Your task to perform on an android device: Open Chrome and go to settings Image 0: 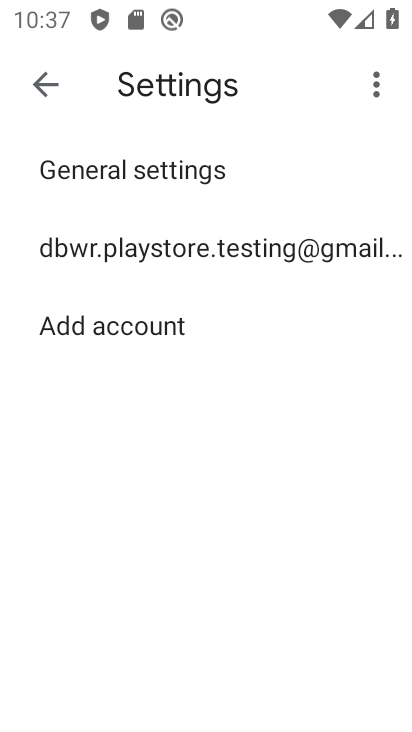
Step 0: press home button
Your task to perform on an android device: Open Chrome and go to settings Image 1: 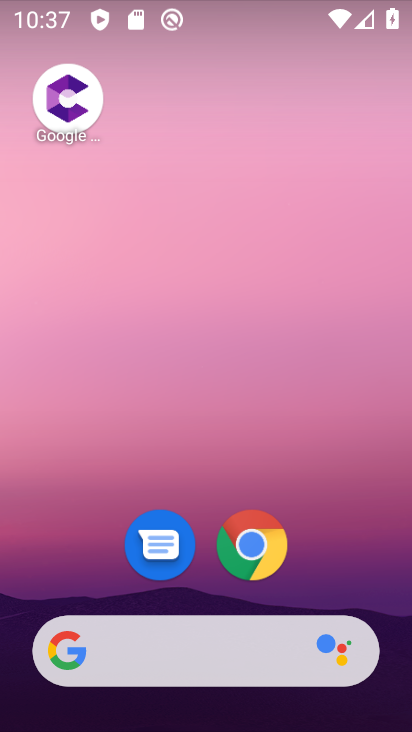
Step 1: drag from (397, 628) to (310, 34)
Your task to perform on an android device: Open Chrome and go to settings Image 2: 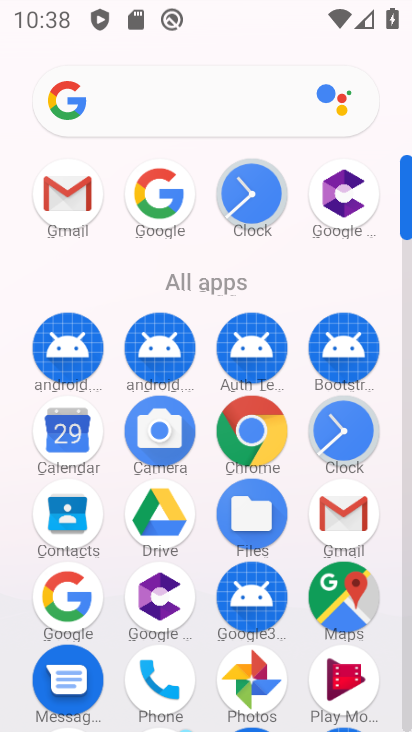
Step 2: click (226, 454)
Your task to perform on an android device: Open Chrome and go to settings Image 3: 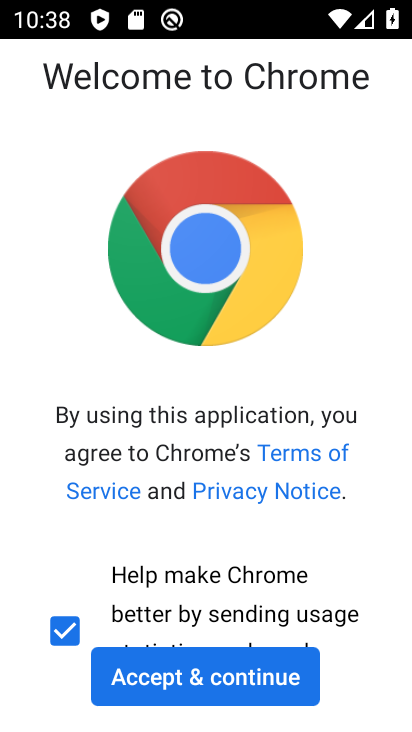
Step 3: click (213, 661)
Your task to perform on an android device: Open Chrome and go to settings Image 4: 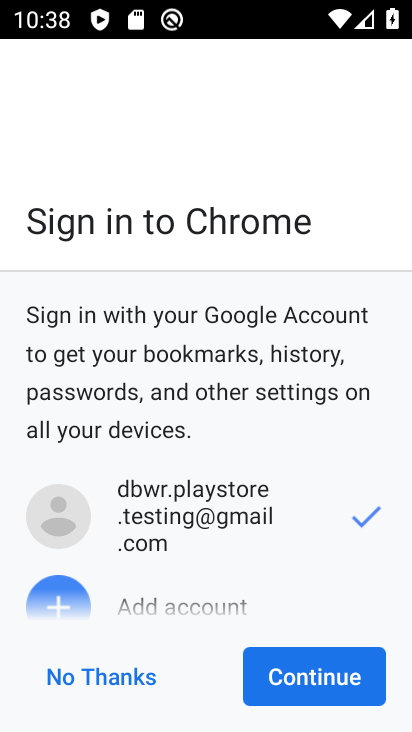
Step 4: click (284, 679)
Your task to perform on an android device: Open Chrome and go to settings Image 5: 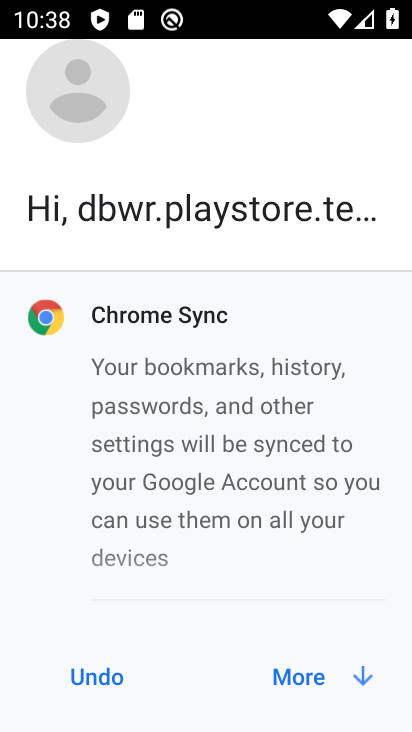
Step 5: click (284, 679)
Your task to perform on an android device: Open Chrome and go to settings Image 6: 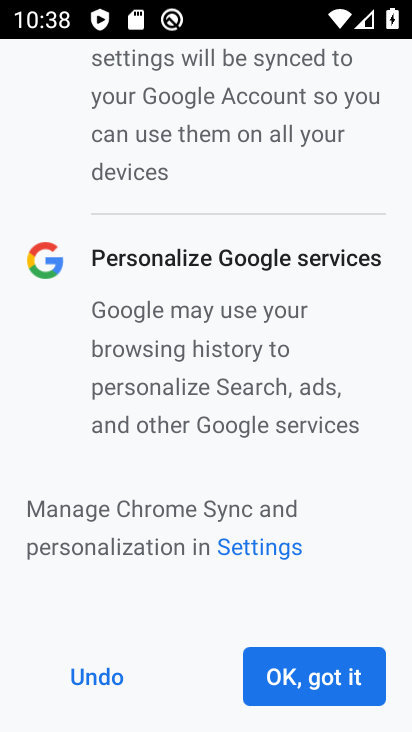
Step 6: click (284, 679)
Your task to perform on an android device: Open Chrome and go to settings Image 7: 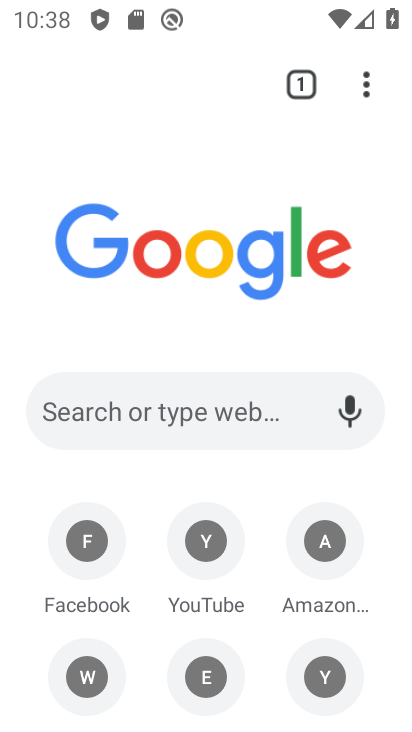
Step 7: click (368, 84)
Your task to perform on an android device: Open Chrome and go to settings Image 8: 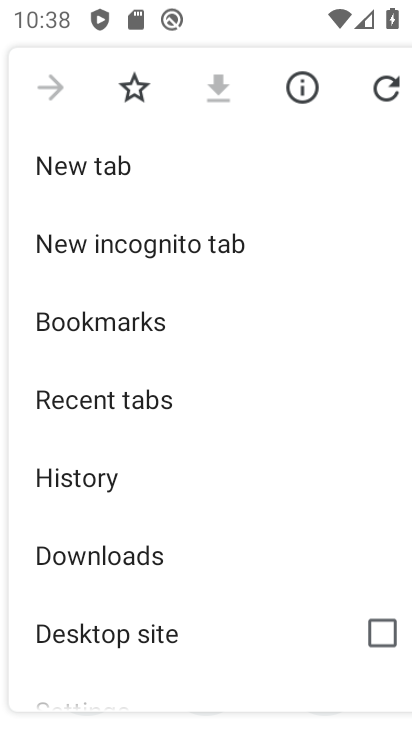
Step 8: drag from (147, 635) to (79, 609)
Your task to perform on an android device: Open Chrome and go to settings Image 9: 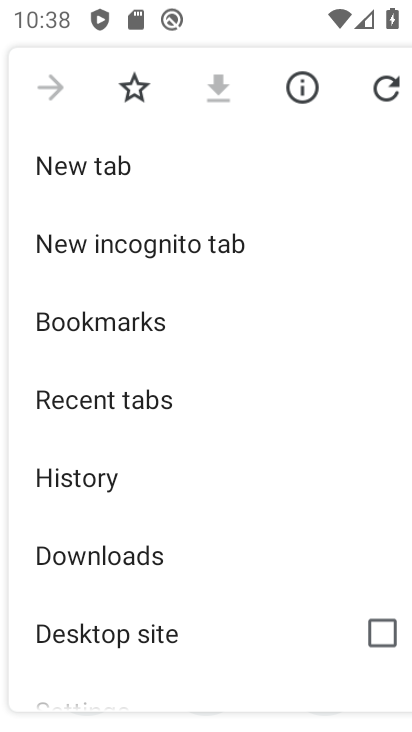
Step 9: drag from (139, 562) to (220, 161)
Your task to perform on an android device: Open Chrome and go to settings Image 10: 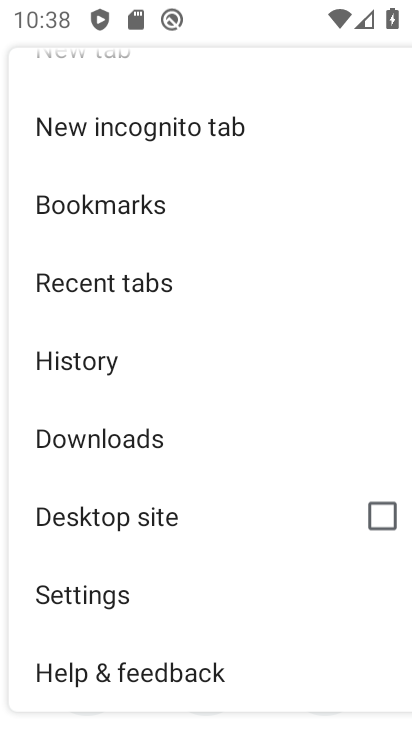
Step 10: click (125, 579)
Your task to perform on an android device: Open Chrome and go to settings Image 11: 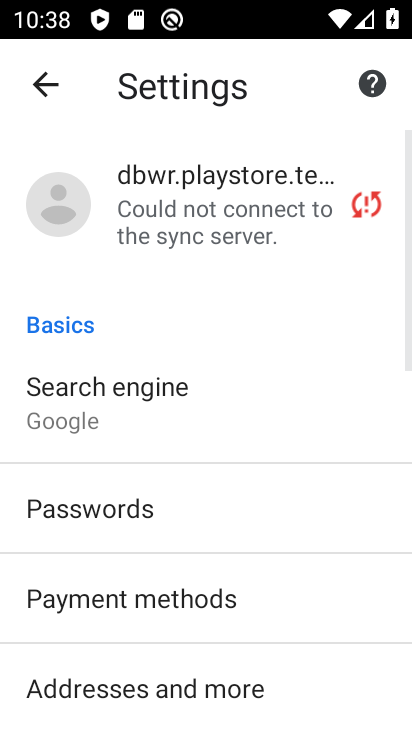
Step 11: task complete